Your task to perform on an android device: Search for vegetarian restaurants on Maps Image 0: 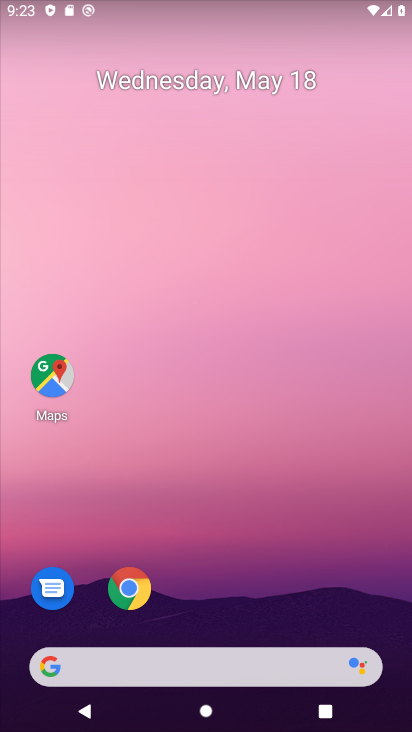
Step 0: press home button
Your task to perform on an android device: Search for vegetarian restaurants on Maps Image 1: 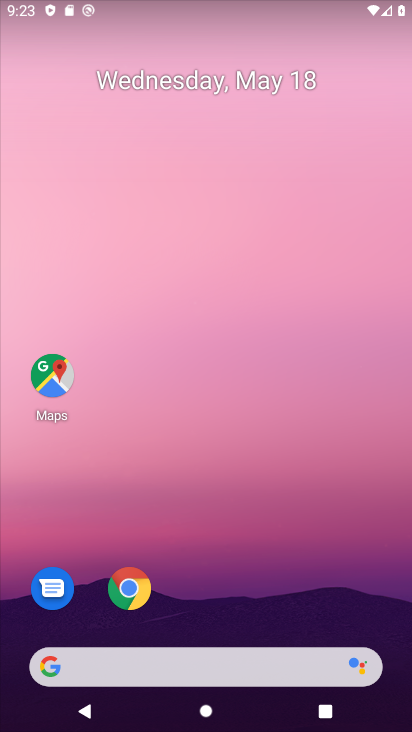
Step 1: click (187, 218)
Your task to perform on an android device: Search for vegetarian restaurants on Maps Image 2: 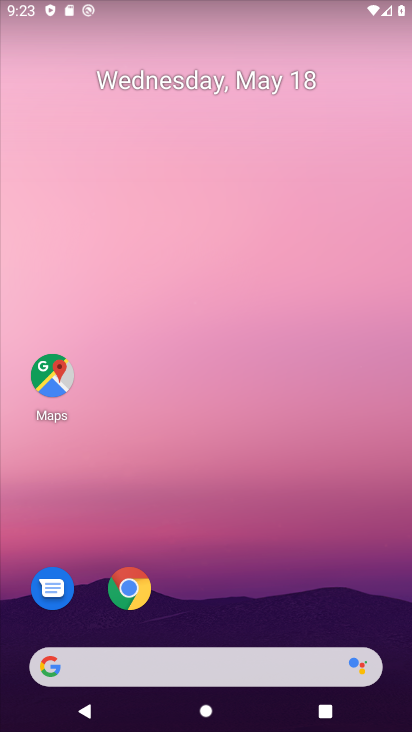
Step 2: drag from (292, 679) to (275, 160)
Your task to perform on an android device: Search for vegetarian restaurants on Maps Image 3: 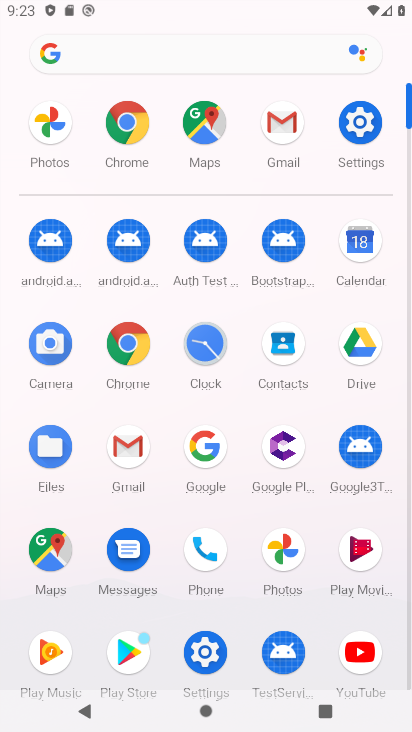
Step 3: click (66, 546)
Your task to perform on an android device: Search for vegetarian restaurants on Maps Image 4: 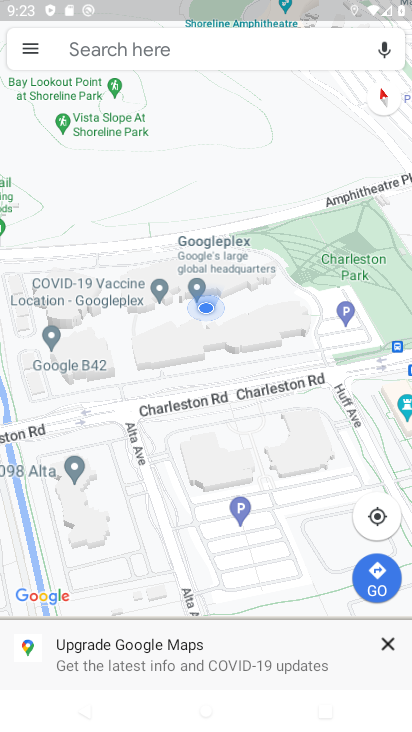
Step 4: click (139, 50)
Your task to perform on an android device: Search for vegetarian restaurants on Maps Image 5: 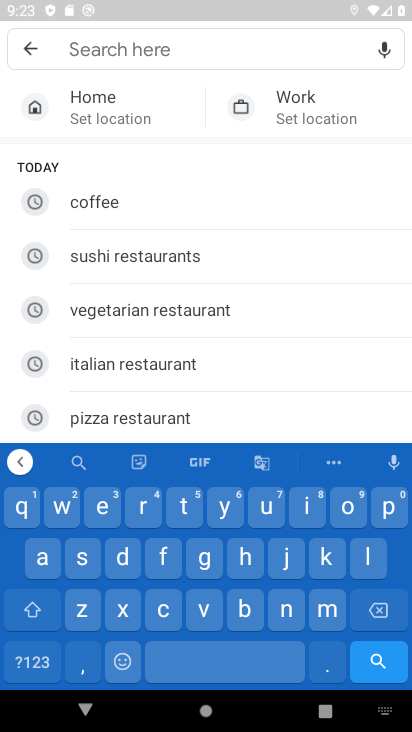
Step 5: click (159, 312)
Your task to perform on an android device: Search for vegetarian restaurants on Maps Image 6: 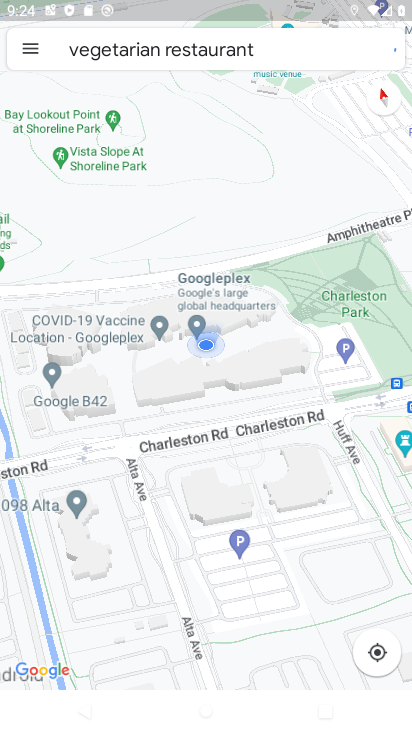
Step 6: task complete